Your task to perform on an android device: set an alarm Image 0: 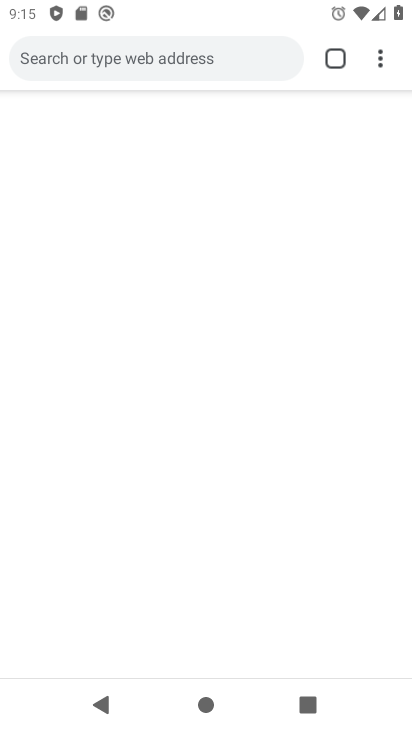
Step 0: click (283, 299)
Your task to perform on an android device: set an alarm Image 1: 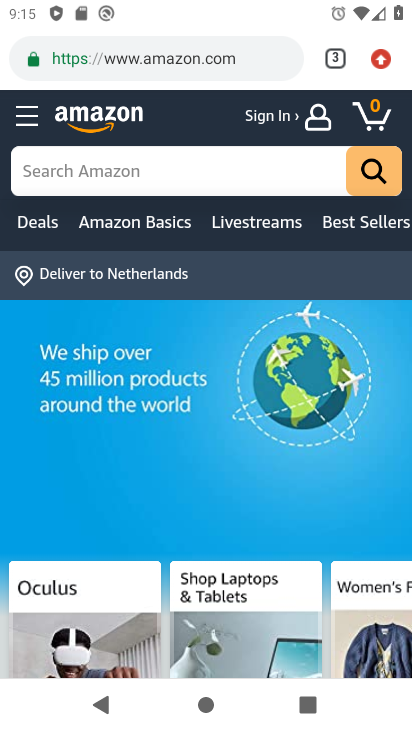
Step 1: press home button
Your task to perform on an android device: set an alarm Image 2: 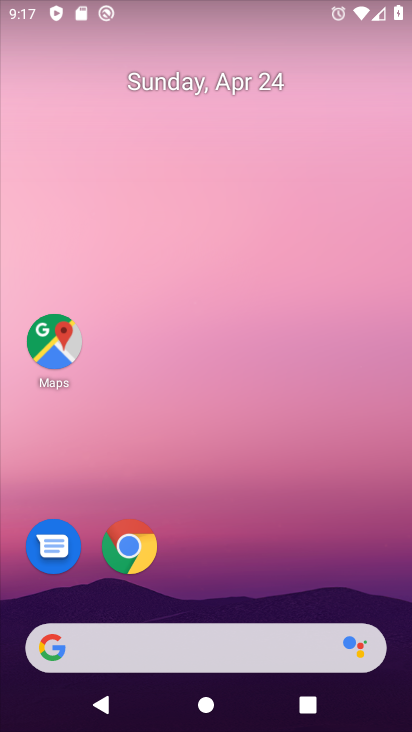
Step 2: drag from (271, 314) to (275, 3)
Your task to perform on an android device: set an alarm Image 3: 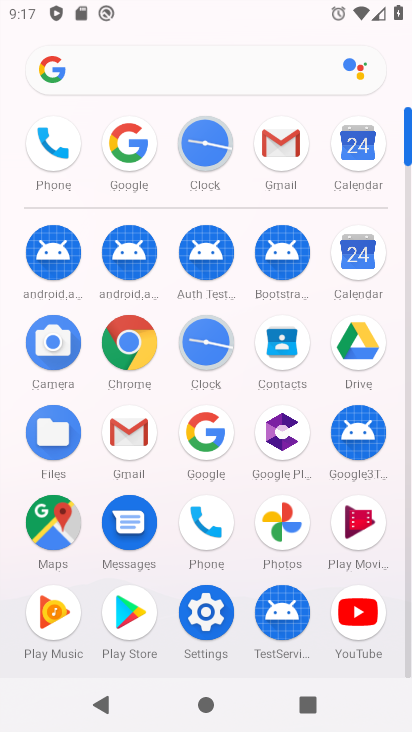
Step 3: click (195, 354)
Your task to perform on an android device: set an alarm Image 4: 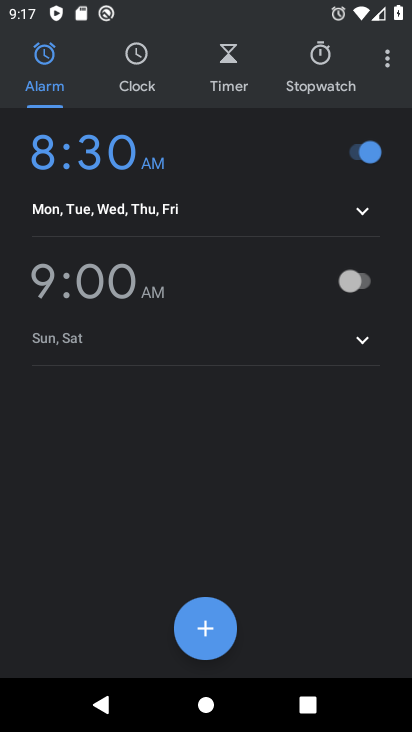
Step 4: click (345, 277)
Your task to perform on an android device: set an alarm Image 5: 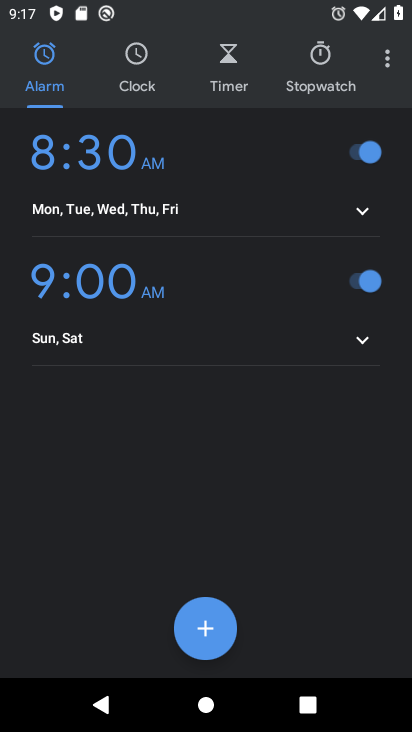
Step 5: task complete